Your task to perform on an android device: move an email to a new category in the gmail app Image 0: 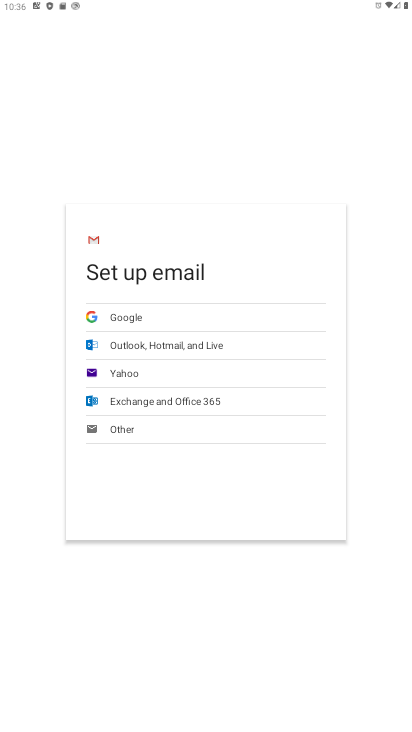
Step 0: press home button
Your task to perform on an android device: move an email to a new category in the gmail app Image 1: 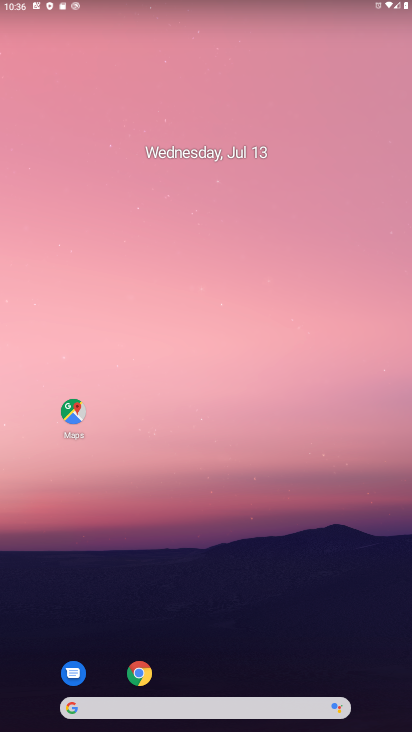
Step 1: drag from (222, 685) to (239, 176)
Your task to perform on an android device: move an email to a new category in the gmail app Image 2: 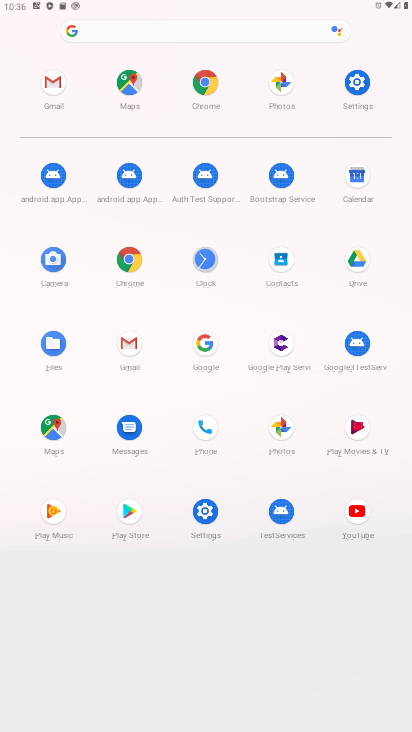
Step 2: click (46, 78)
Your task to perform on an android device: move an email to a new category in the gmail app Image 3: 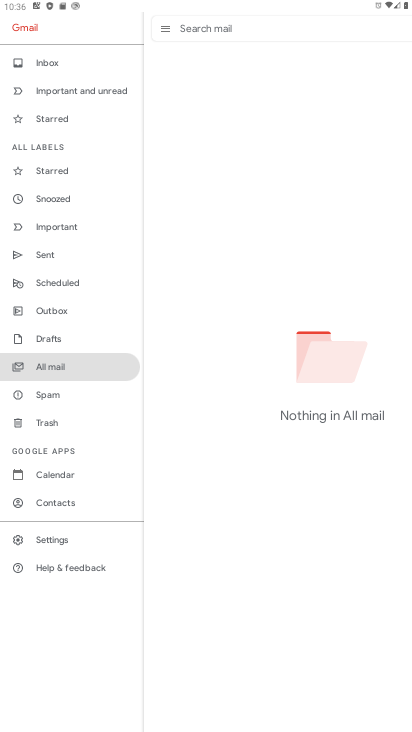
Step 3: task complete